Your task to perform on an android device: change the clock style Image 0: 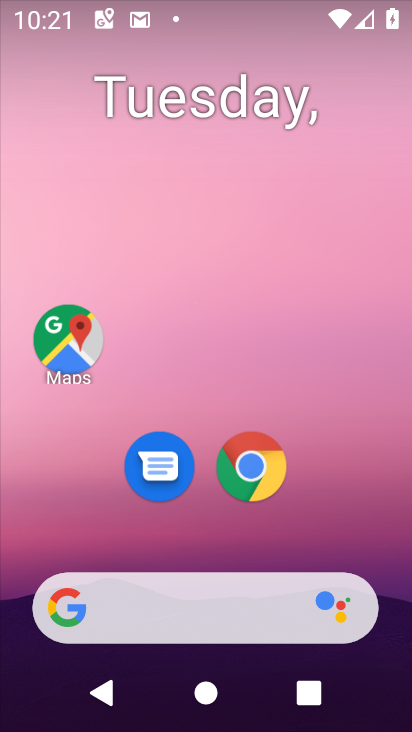
Step 0: press home button
Your task to perform on an android device: change the clock style Image 1: 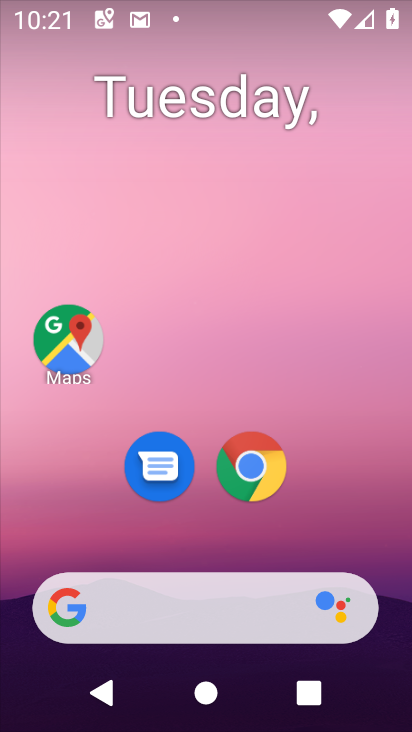
Step 1: drag from (241, 645) to (213, 249)
Your task to perform on an android device: change the clock style Image 2: 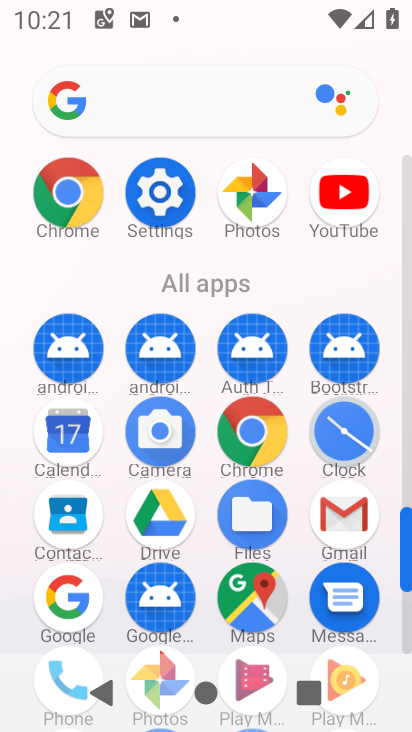
Step 2: click (336, 447)
Your task to perform on an android device: change the clock style Image 3: 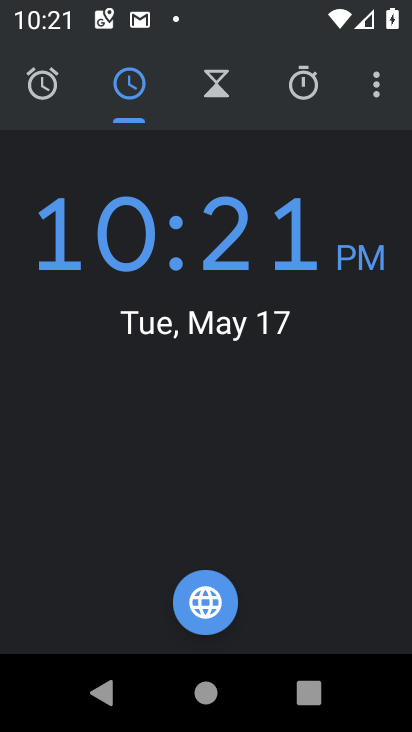
Step 3: click (372, 115)
Your task to perform on an android device: change the clock style Image 4: 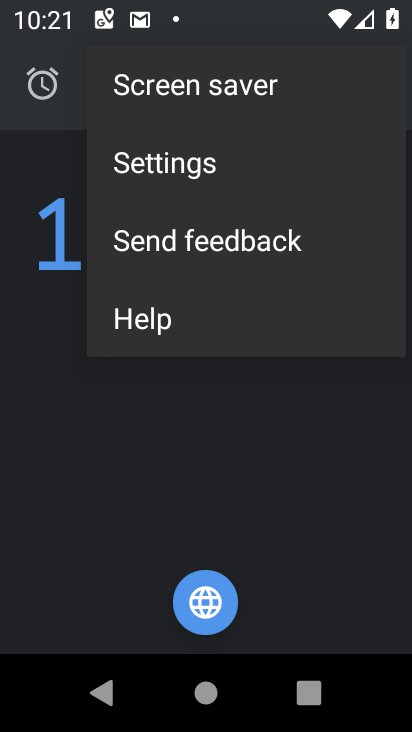
Step 4: click (220, 167)
Your task to perform on an android device: change the clock style Image 5: 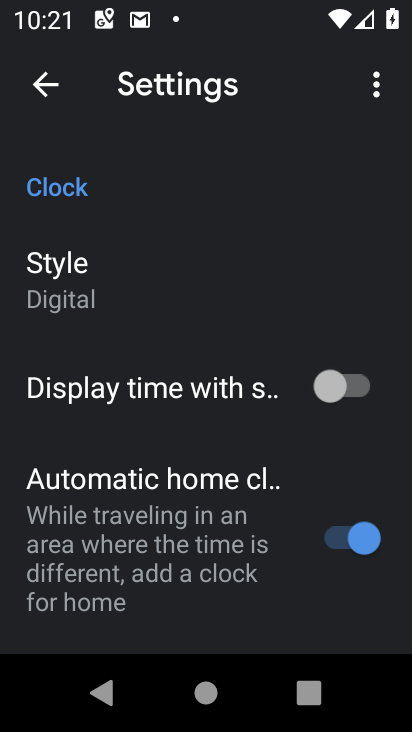
Step 5: click (121, 265)
Your task to perform on an android device: change the clock style Image 6: 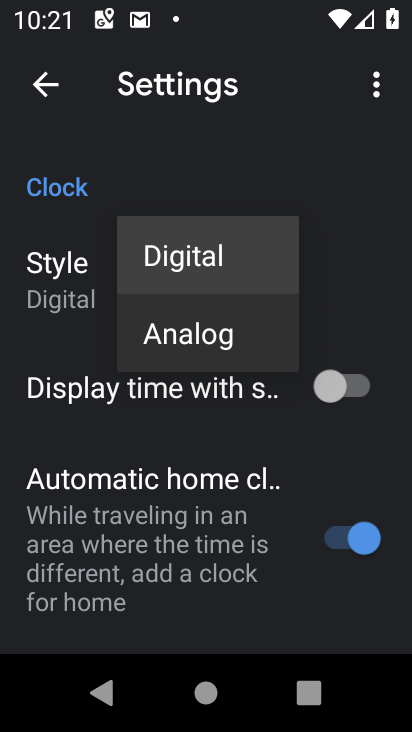
Step 6: click (197, 333)
Your task to perform on an android device: change the clock style Image 7: 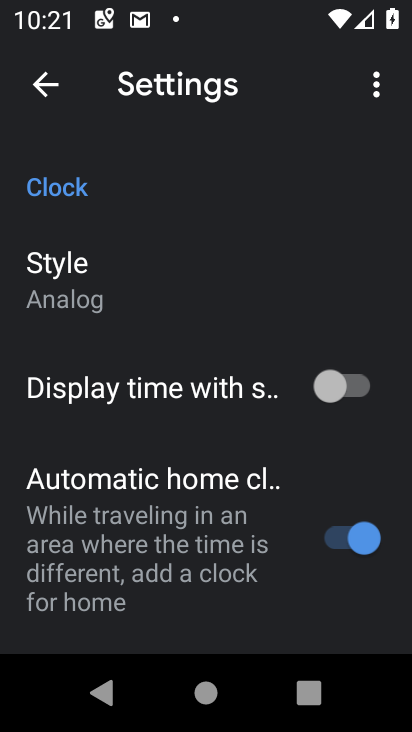
Step 7: task complete